Your task to perform on an android device: Go to notification settings Image 0: 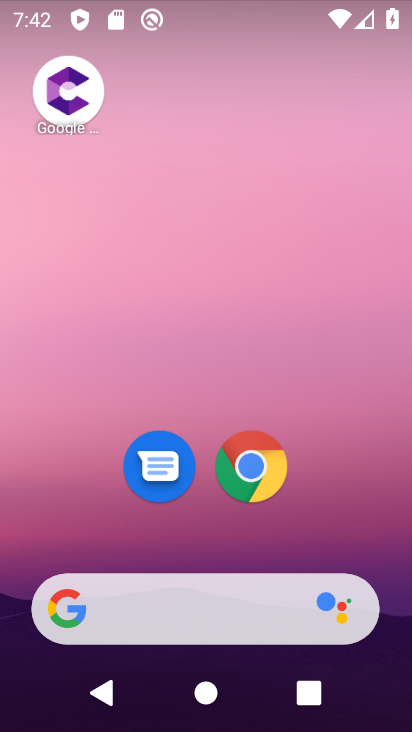
Step 0: drag from (231, 566) to (163, 18)
Your task to perform on an android device: Go to notification settings Image 1: 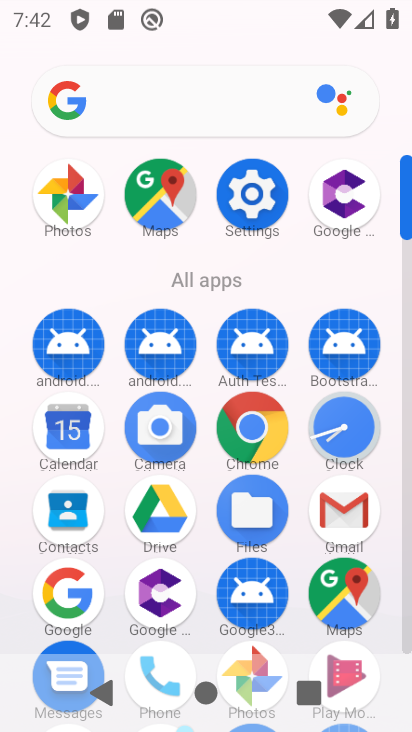
Step 1: click (263, 221)
Your task to perform on an android device: Go to notification settings Image 2: 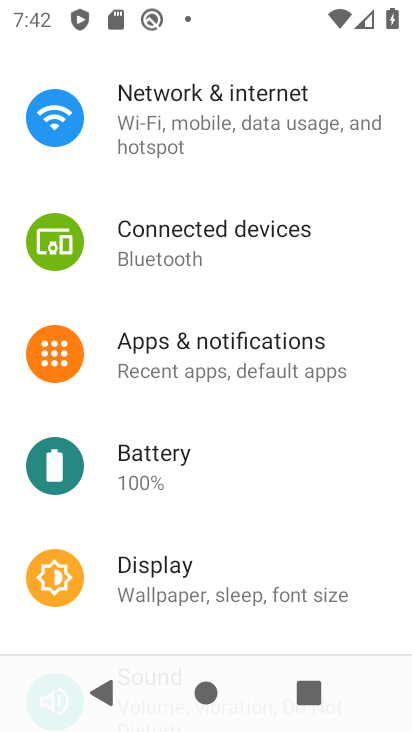
Step 2: click (199, 340)
Your task to perform on an android device: Go to notification settings Image 3: 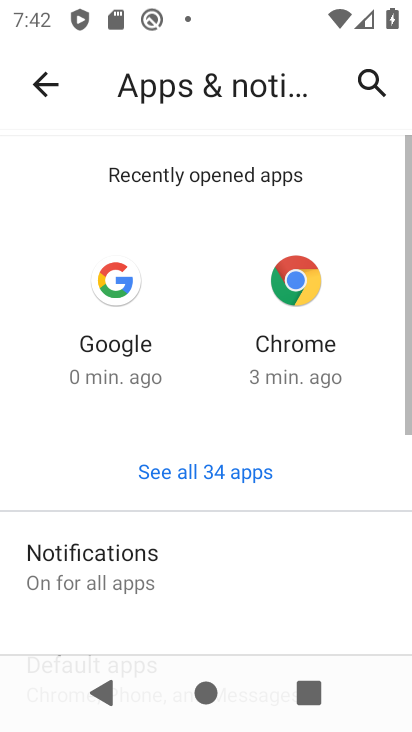
Step 3: click (143, 564)
Your task to perform on an android device: Go to notification settings Image 4: 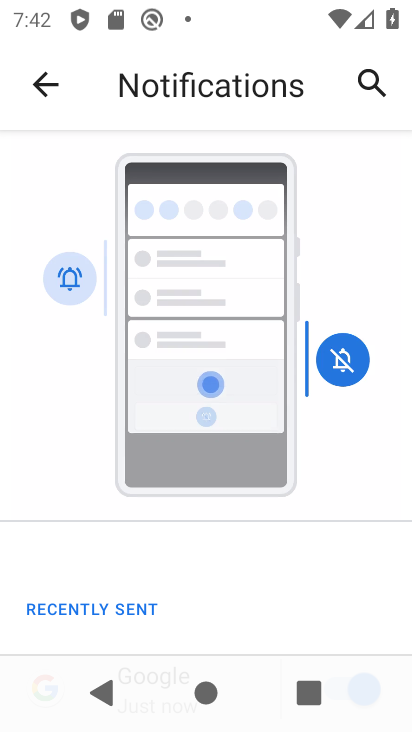
Step 4: task complete